Your task to perform on an android device: Set the phone to "Do not disturb". Image 0: 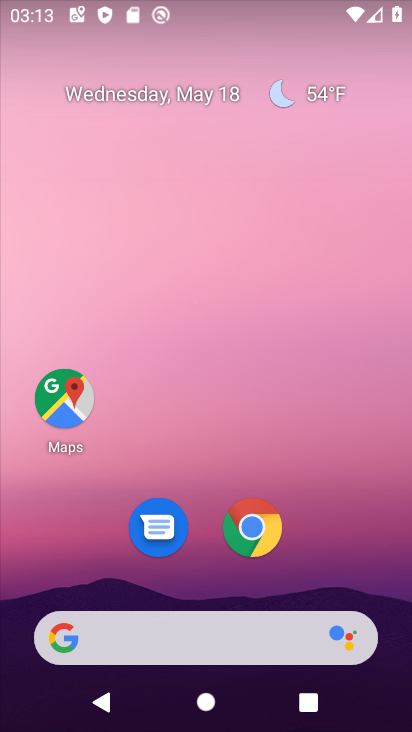
Step 0: drag from (232, 21) to (239, 442)
Your task to perform on an android device: Set the phone to "Do not disturb". Image 1: 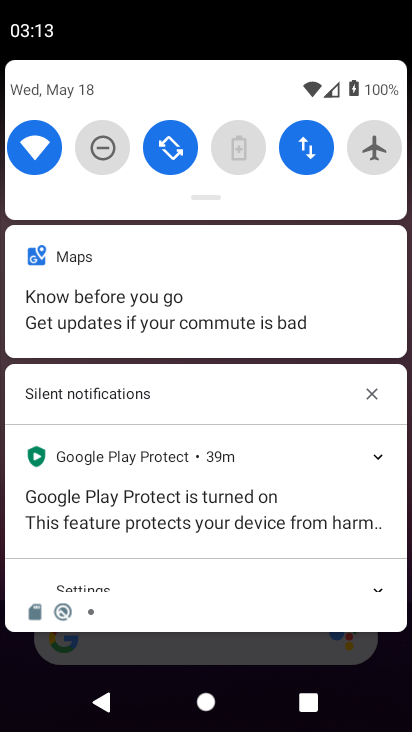
Step 1: click (118, 145)
Your task to perform on an android device: Set the phone to "Do not disturb". Image 2: 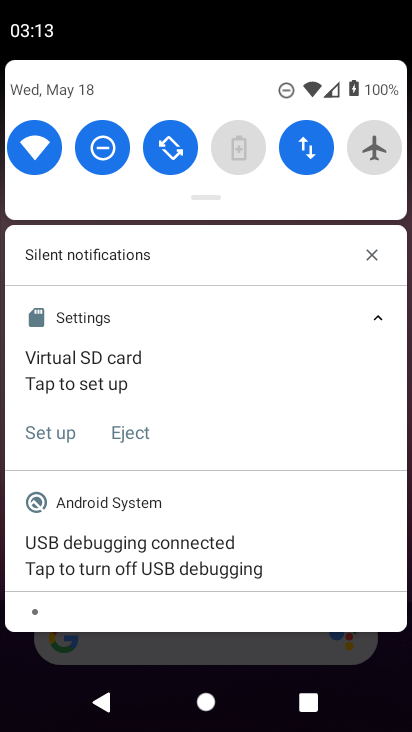
Step 2: task complete